Your task to perform on an android device: toggle data saver in the chrome app Image 0: 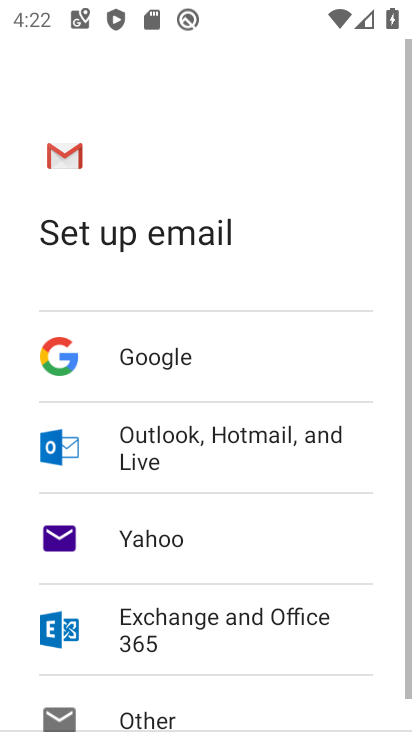
Step 0: press home button
Your task to perform on an android device: toggle data saver in the chrome app Image 1: 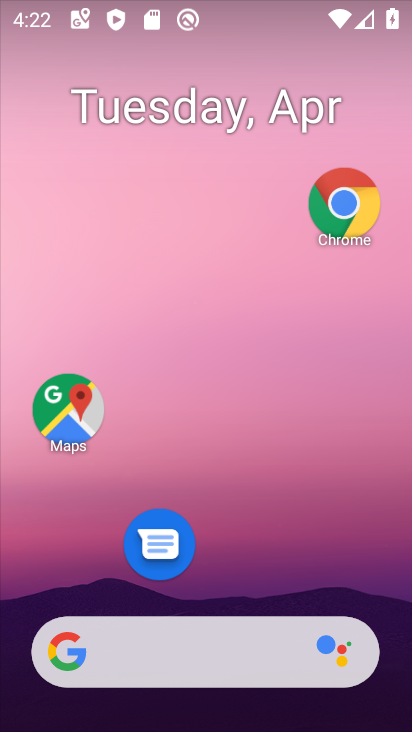
Step 1: click (353, 205)
Your task to perform on an android device: toggle data saver in the chrome app Image 2: 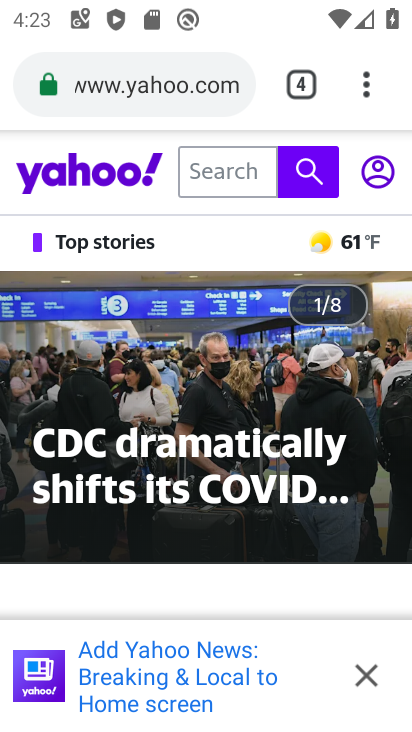
Step 2: click (371, 79)
Your task to perform on an android device: toggle data saver in the chrome app Image 3: 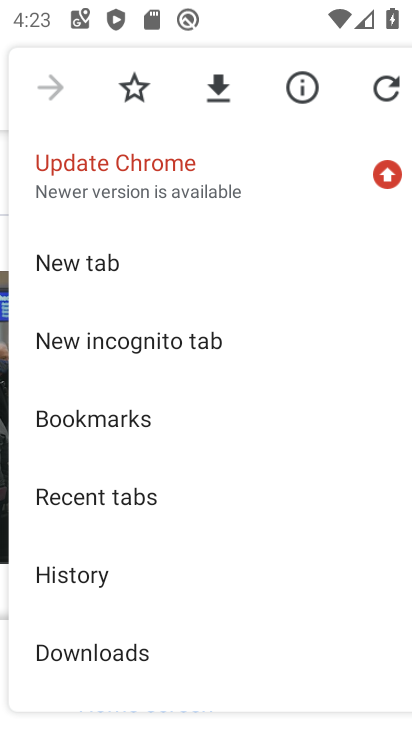
Step 3: drag from (106, 601) to (209, 128)
Your task to perform on an android device: toggle data saver in the chrome app Image 4: 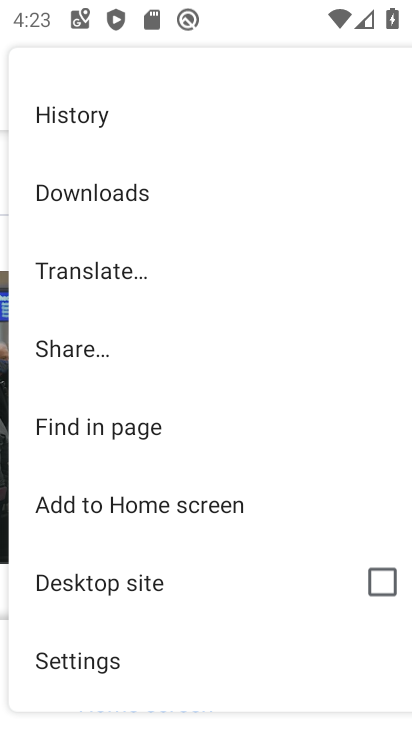
Step 4: click (68, 654)
Your task to perform on an android device: toggle data saver in the chrome app Image 5: 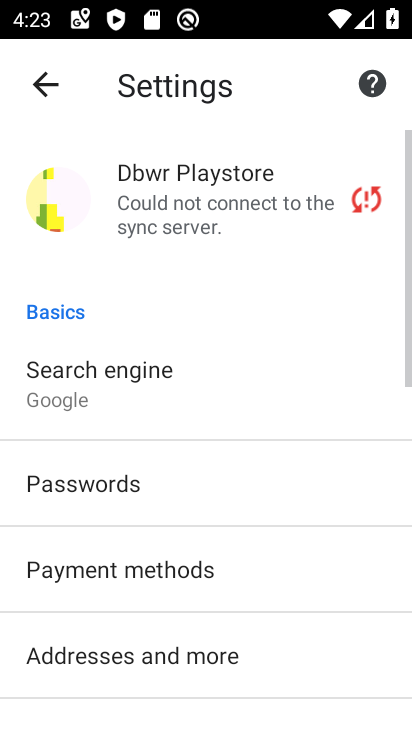
Step 5: drag from (116, 576) to (176, 282)
Your task to perform on an android device: toggle data saver in the chrome app Image 6: 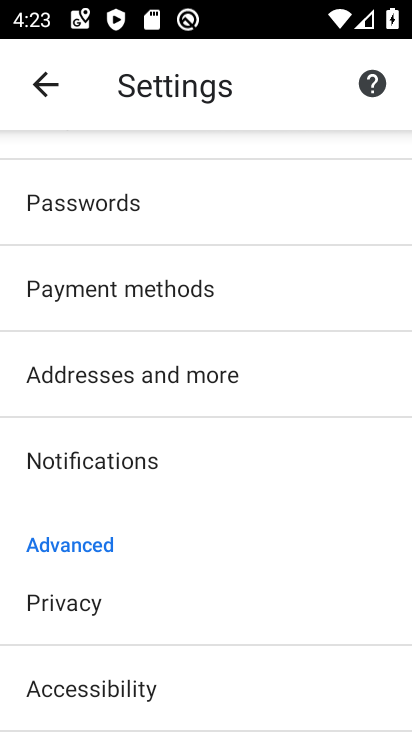
Step 6: drag from (110, 644) to (181, 257)
Your task to perform on an android device: toggle data saver in the chrome app Image 7: 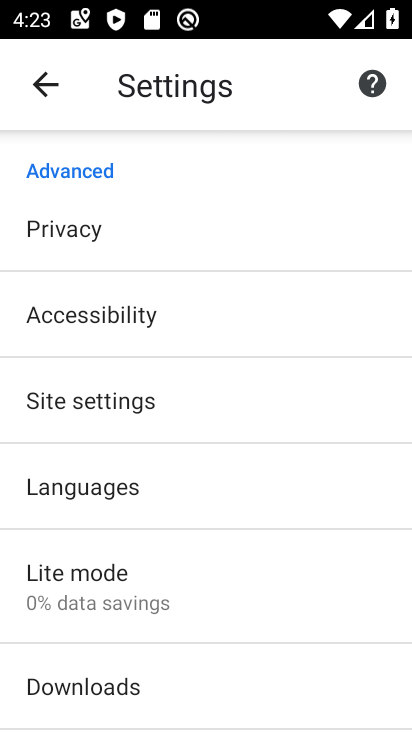
Step 7: click (98, 587)
Your task to perform on an android device: toggle data saver in the chrome app Image 8: 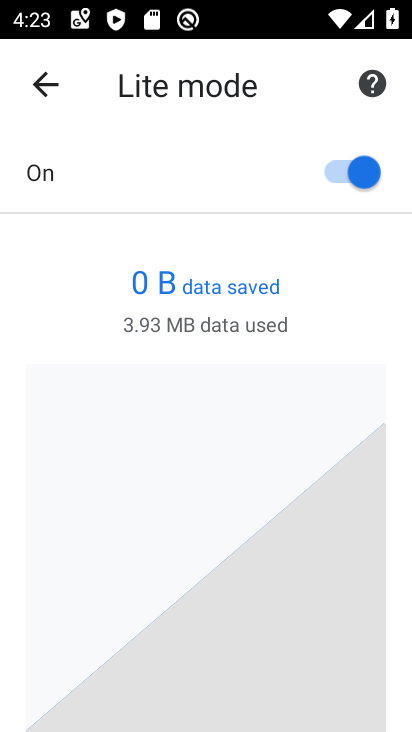
Step 8: click (338, 177)
Your task to perform on an android device: toggle data saver in the chrome app Image 9: 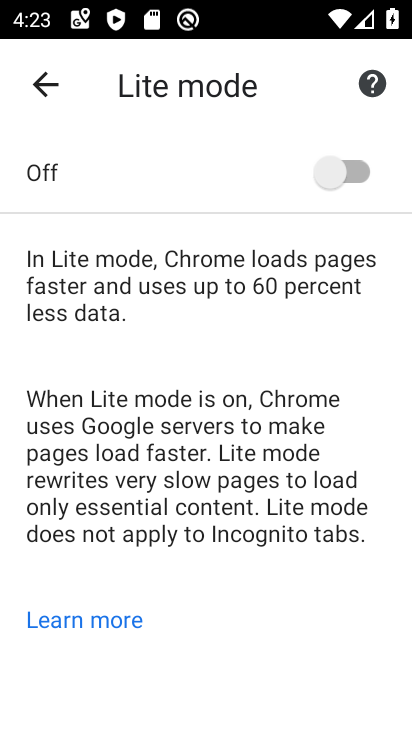
Step 9: task complete